Your task to perform on an android device: uninstall "Google Docs" Image 0: 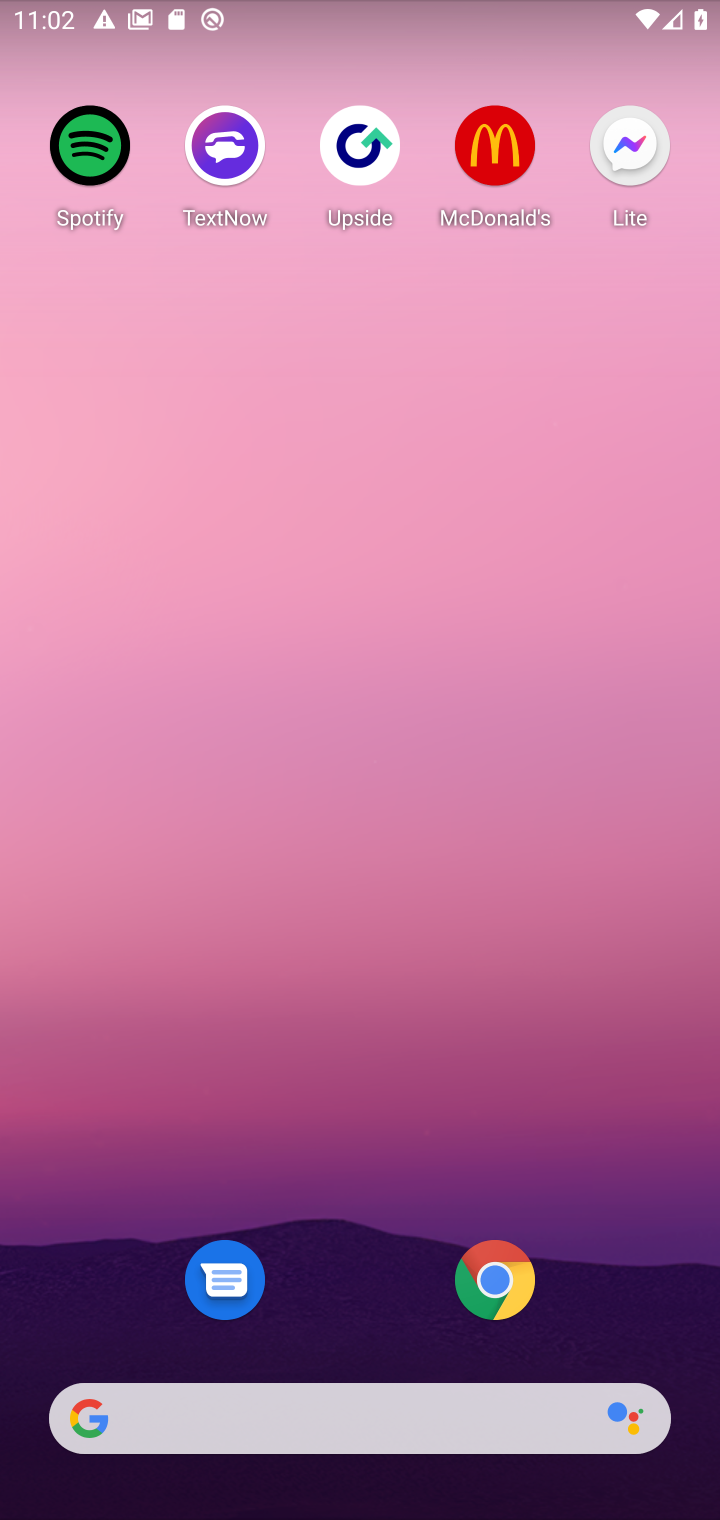
Step 0: drag from (295, 1345) to (238, 133)
Your task to perform on an android device: uninstall "Google Docs" Image 1: 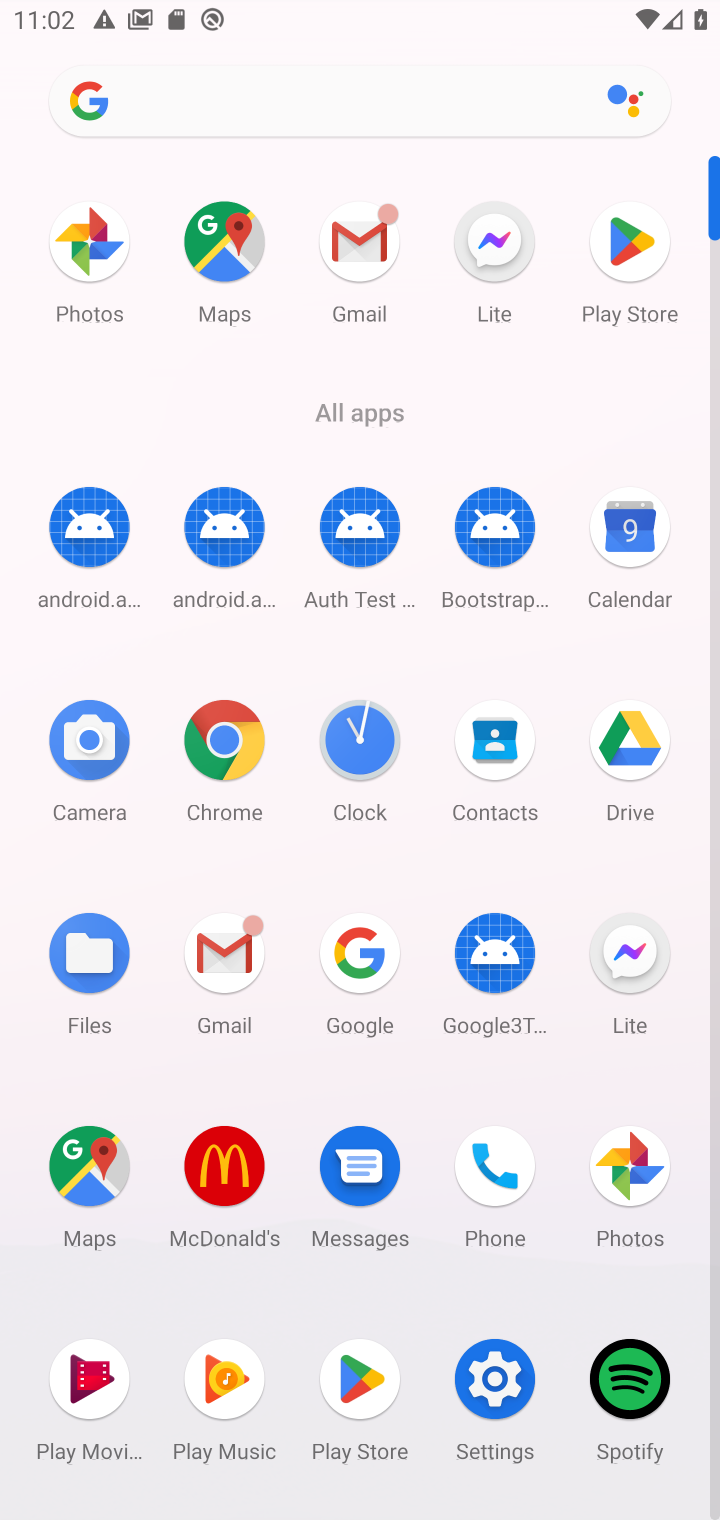
Step 1: click (612, 241)
Your task to perform on an android device: uninstall "Google Docs" Image 2: 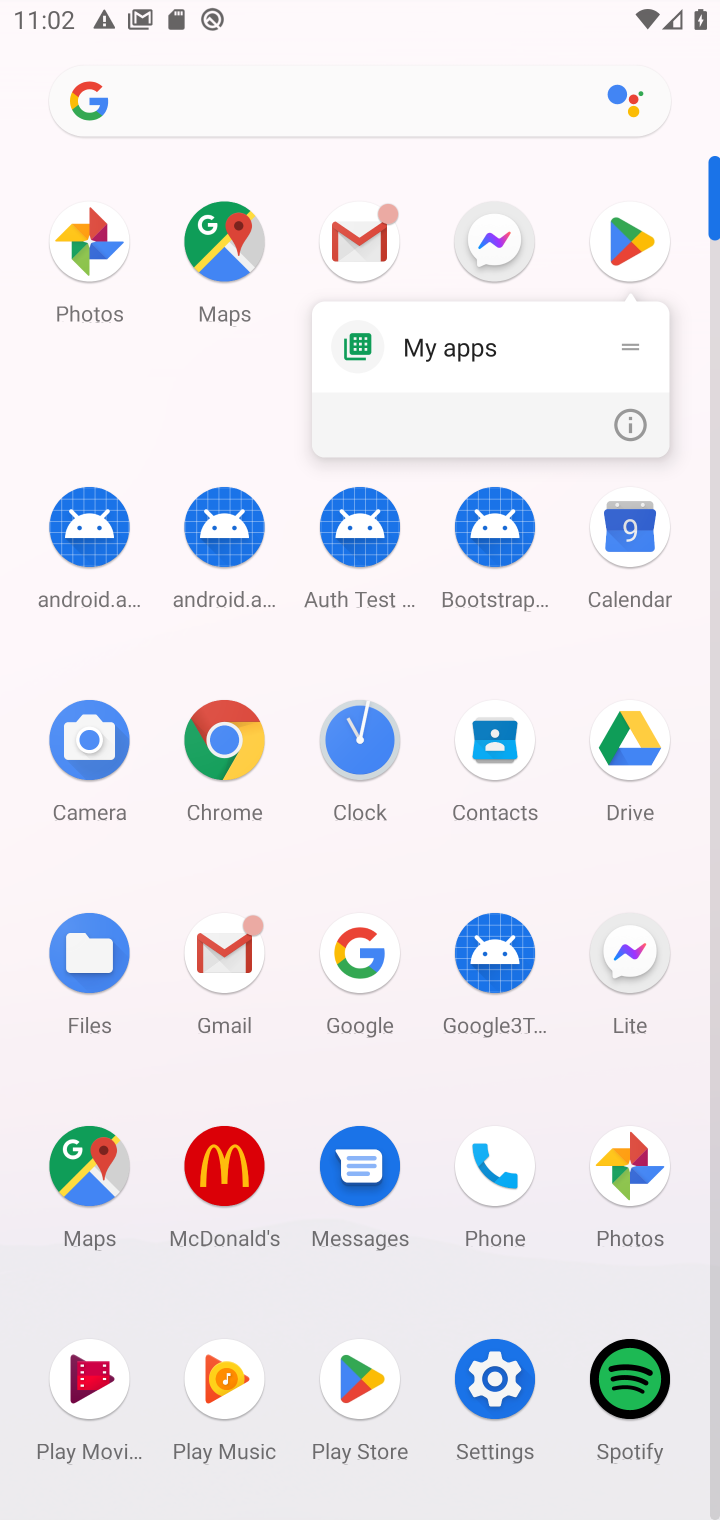
Step 2: click (589, 252)
Your task to perform on an android device: uninstall "Google Docs" Image 3: 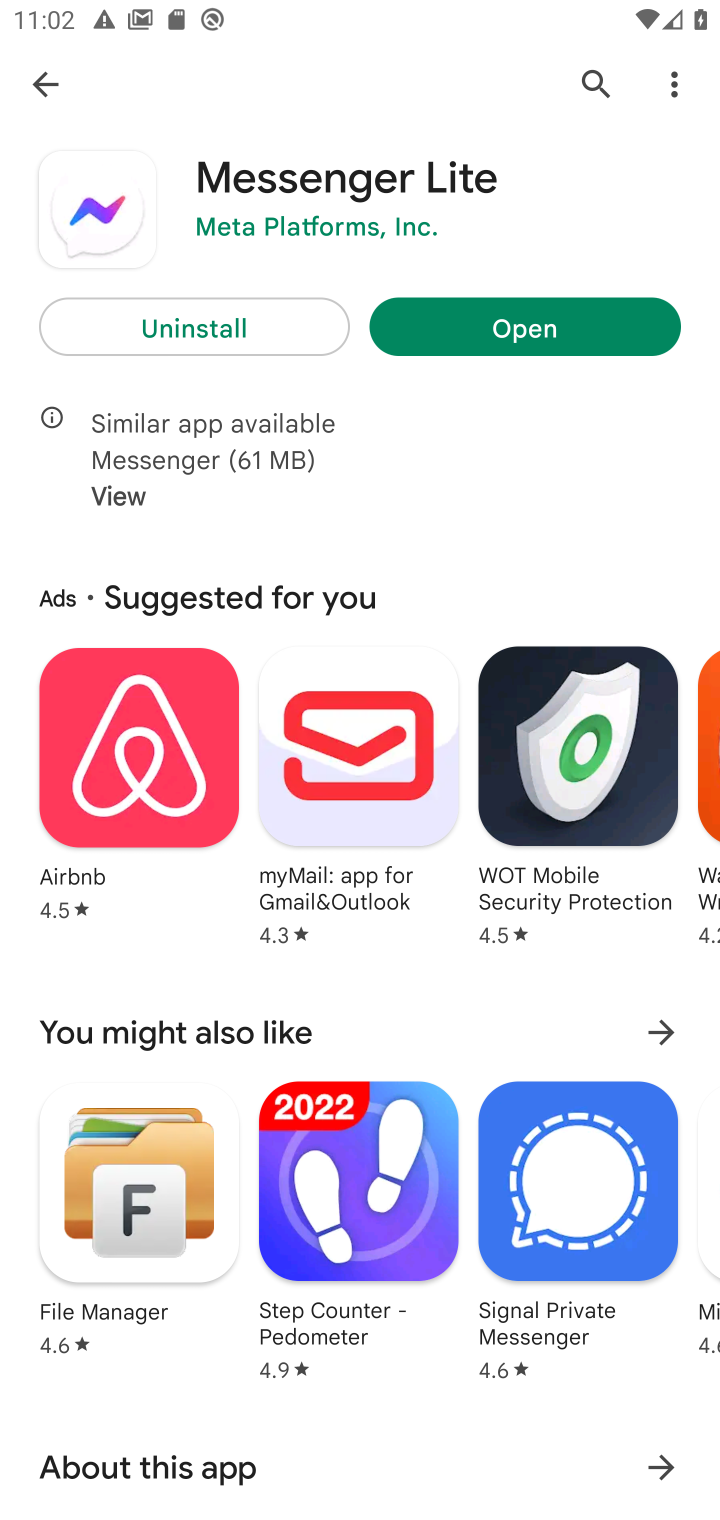
Step 3: click (19, 68)
Your task to perform on an android device: uninstall "Google Docs" Image 4: 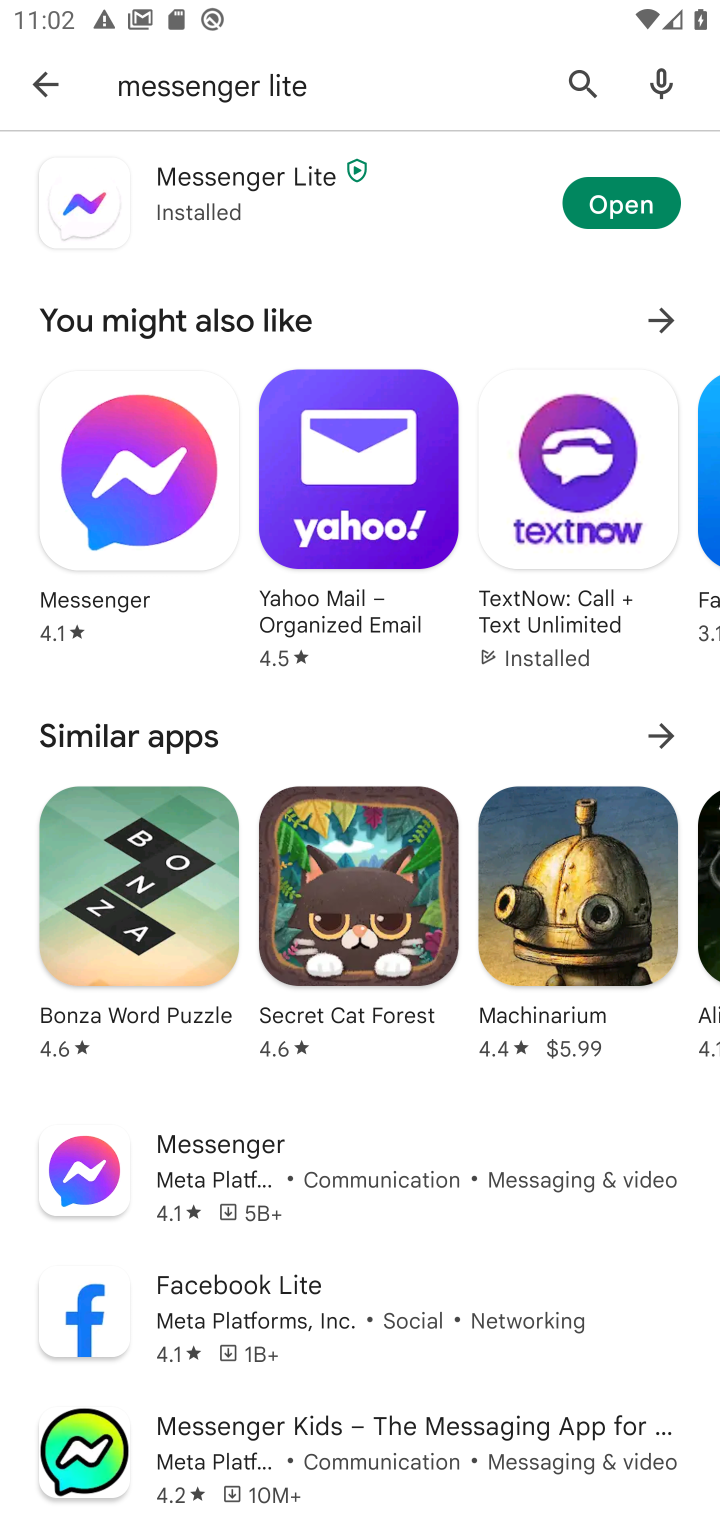
Step 4: click (567, 76)
Your task to perform on an android device: uninstall "Google Docs" Image 5: 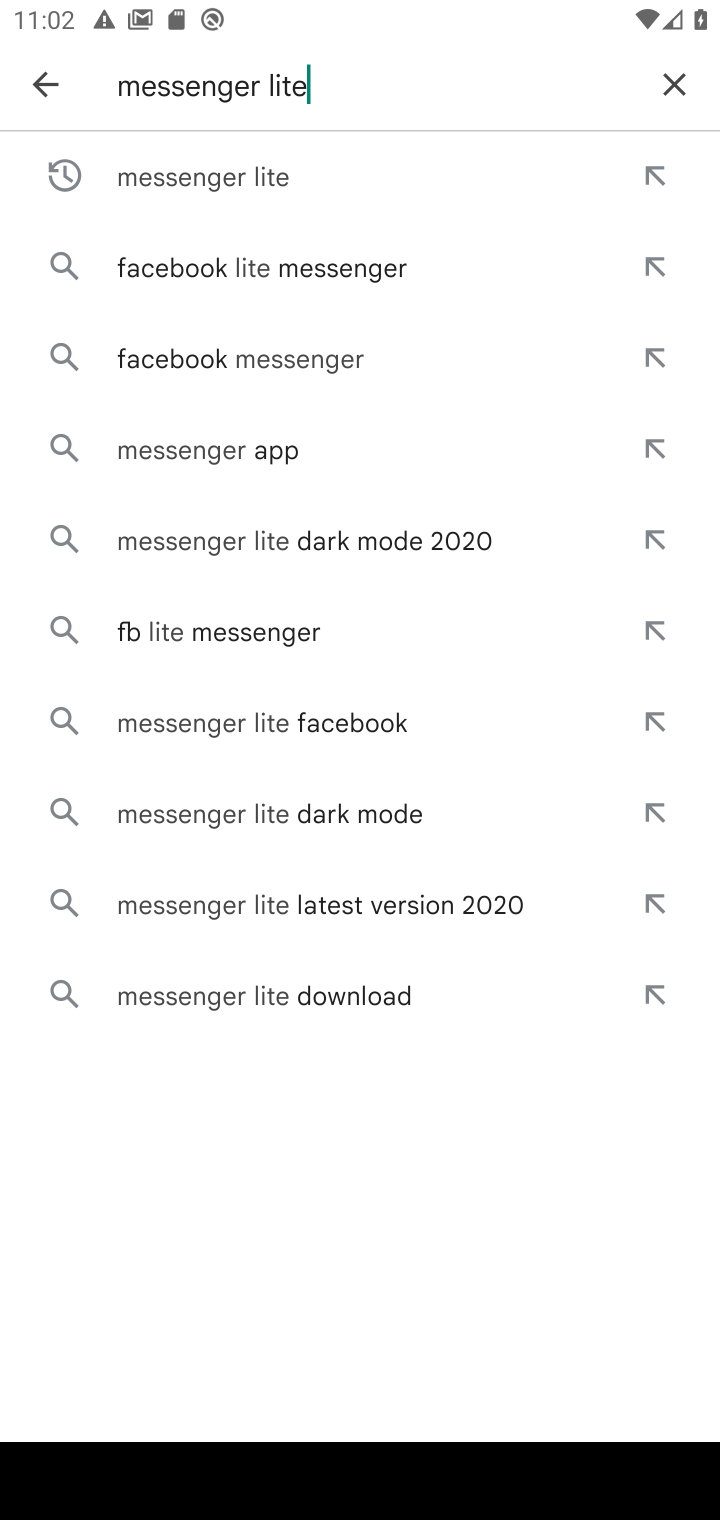
Step 5: click (683, 82)
Your task to perform on an android device: uninstall "Google Docs" Image 6: 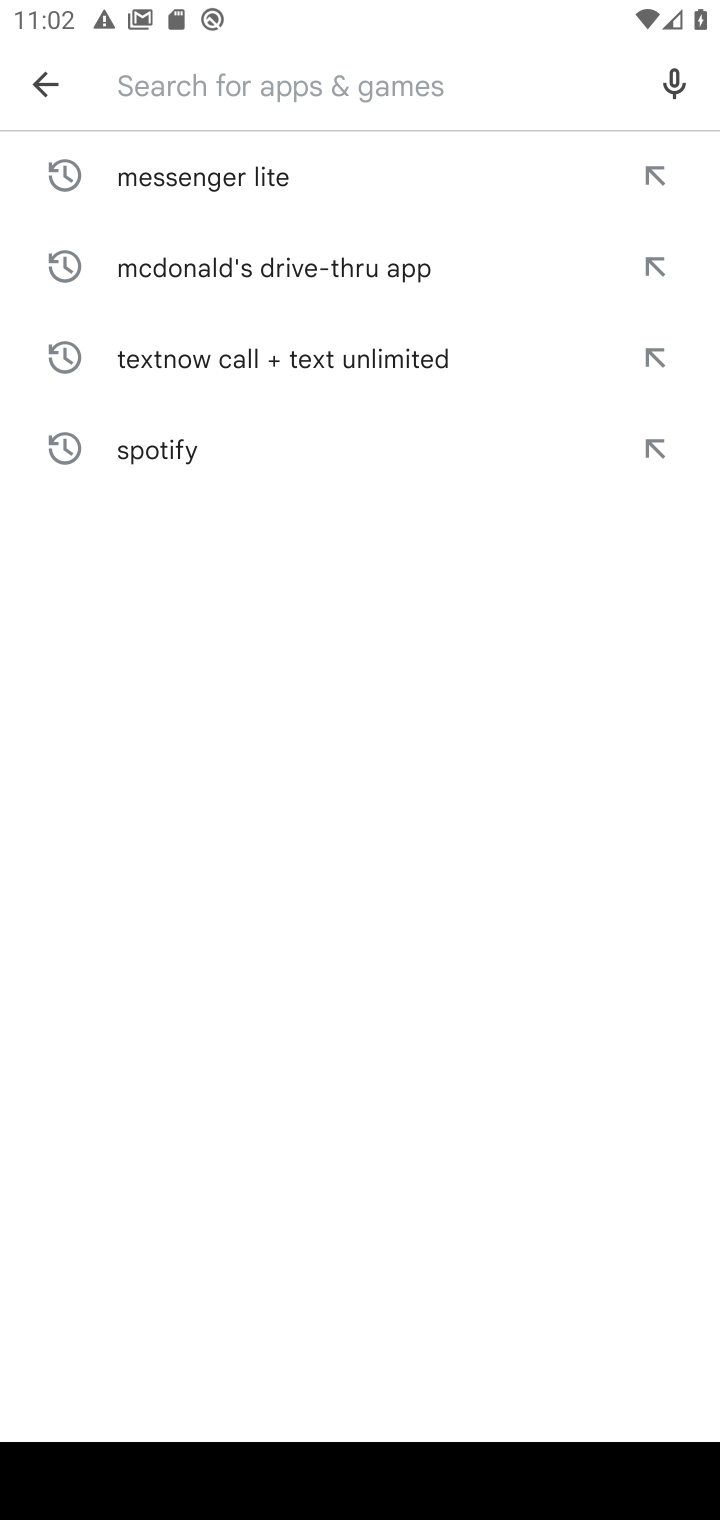
Step 6: type "Google Docs"
Your task to perform on an android device: uninstall "Google Docs" Image 7: 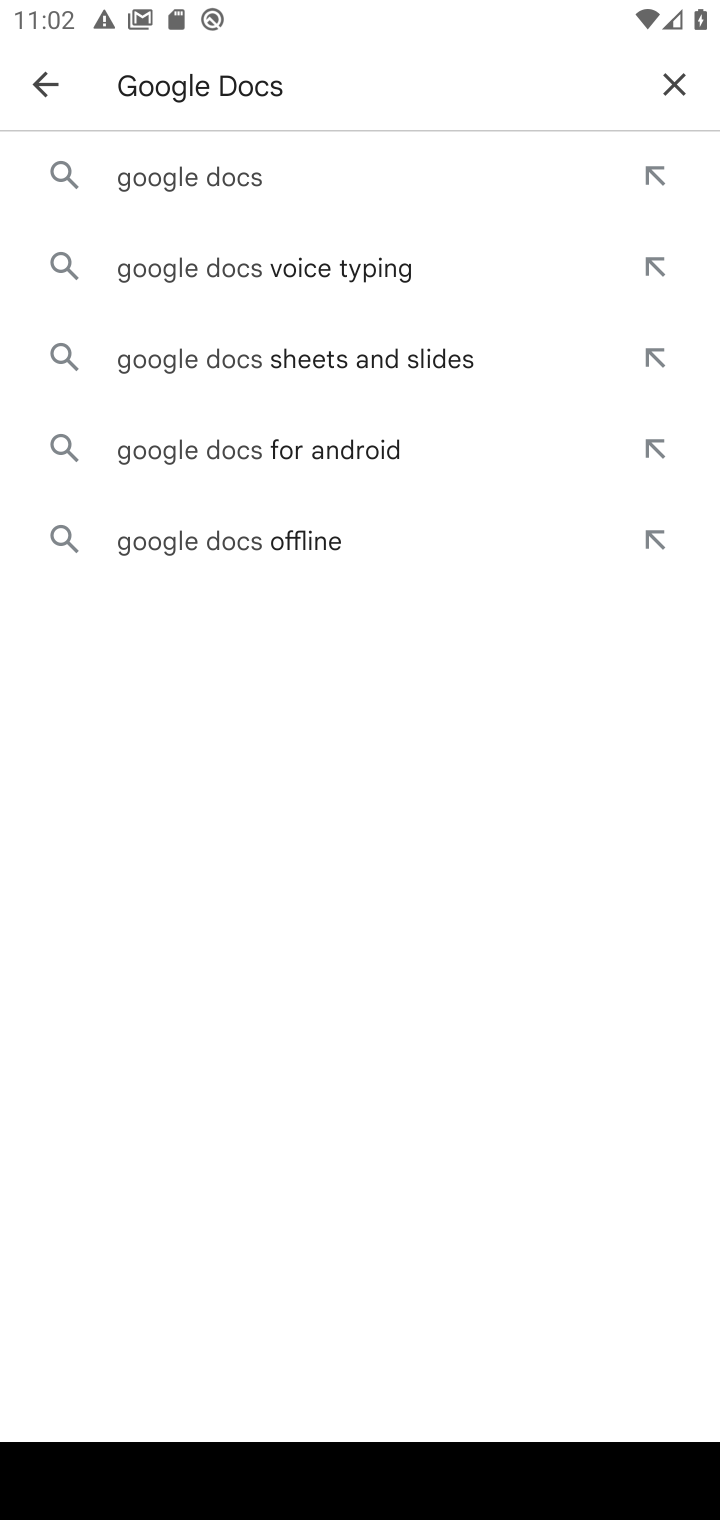
Step 7: click (214, 204)
Your task to perform on an android device: uninstall "Google Docs" Image 8: 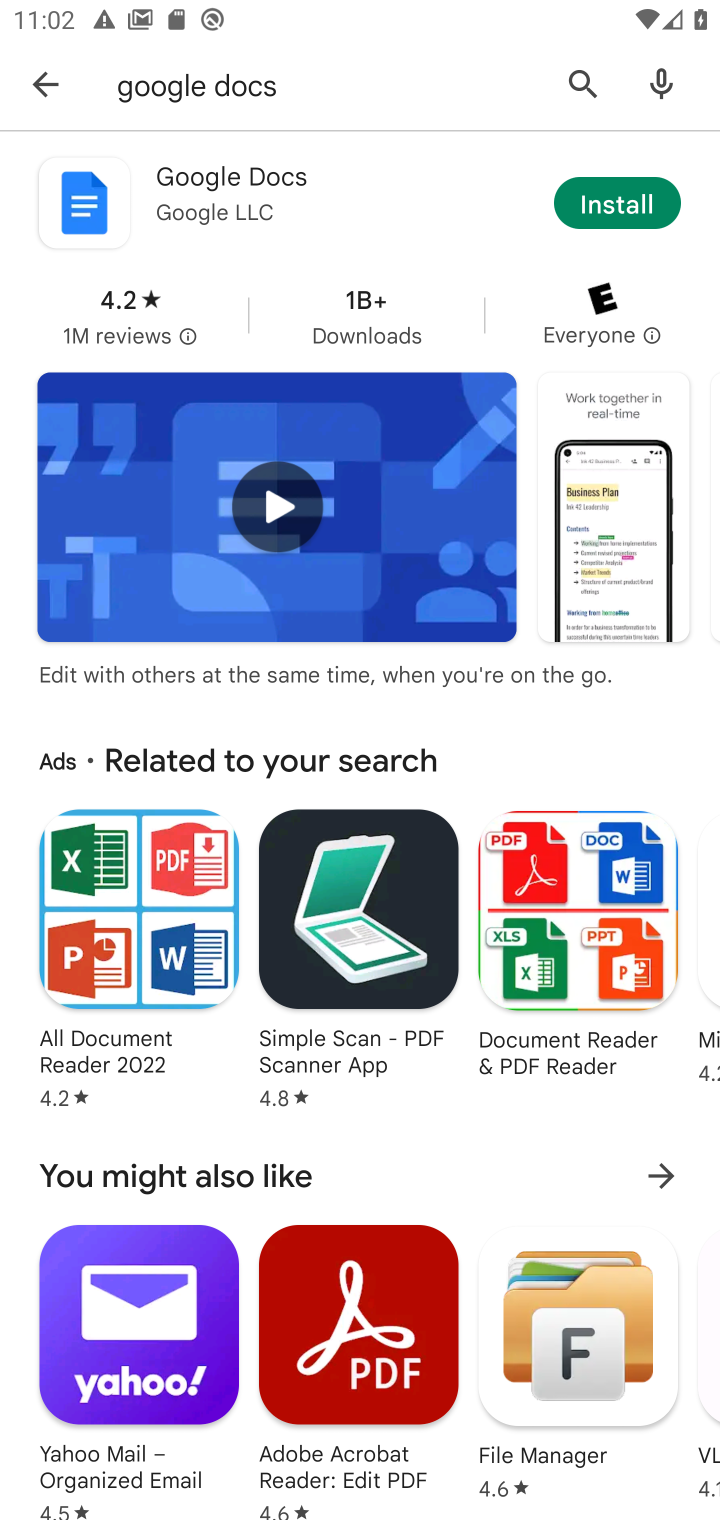
Step 8: click (239, 184)
Your task to perform on an android device: uninstall "Google Docs" Image 9: 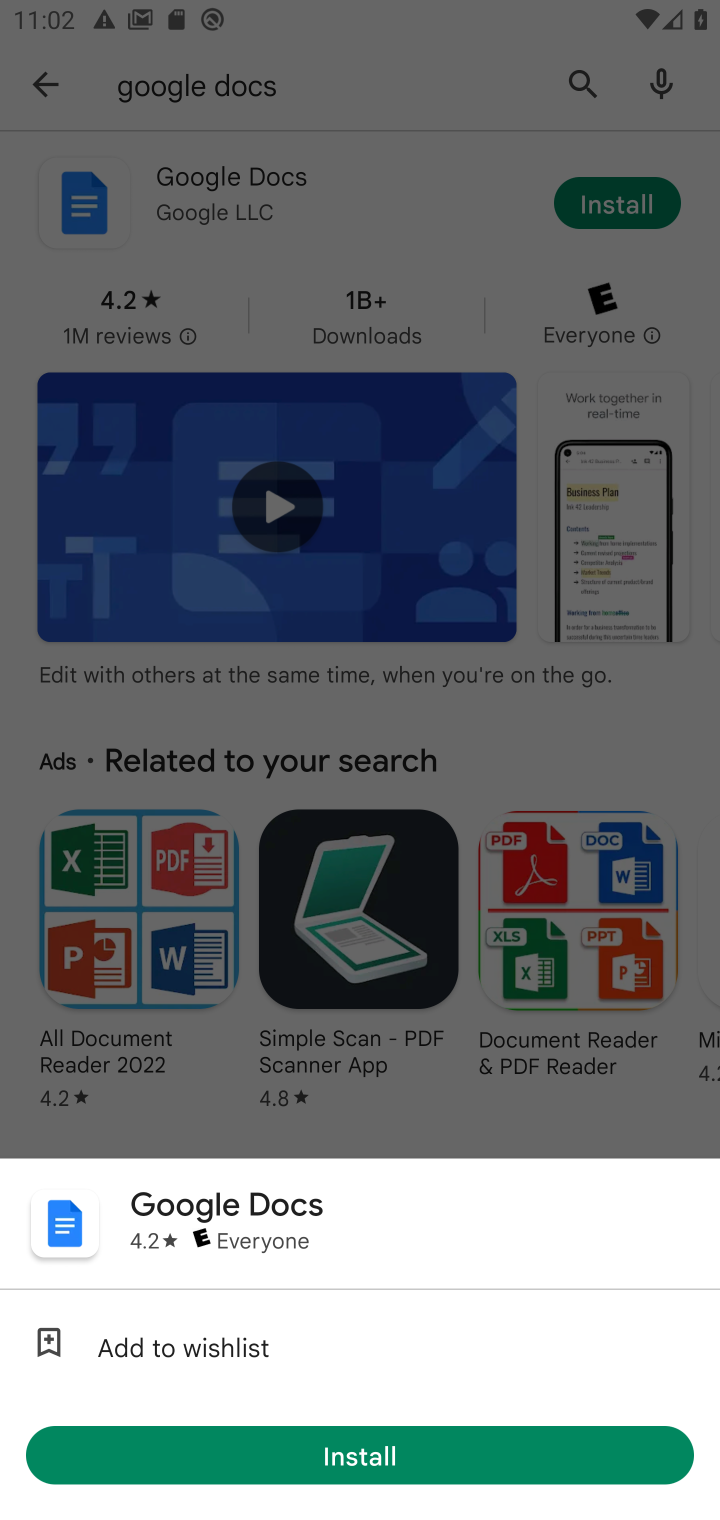
Step 9: task complete